Your task to perform on an android device: Show me the alarms in the clock app Image 0: 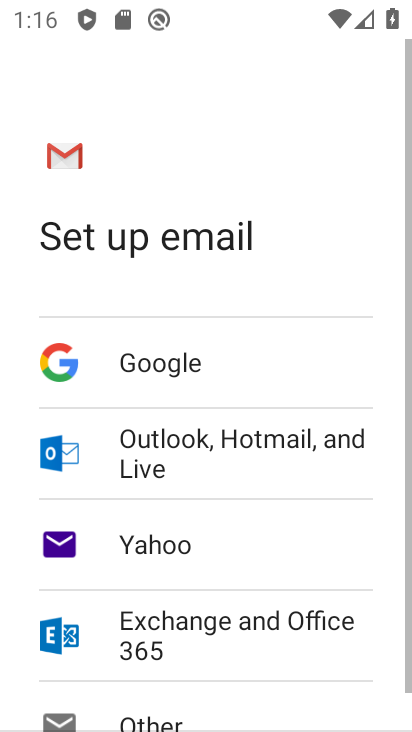
Step 0: press home button
Your task to perform on an android device: Show me the alarms in the clock app Image 1: 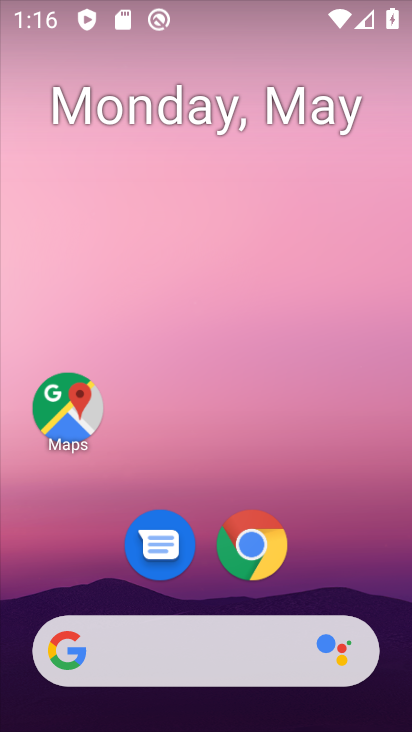
Step 1: drag from (185, 708) to (258, 110)
Your task to perform on an android device: Show me the alarms in the clock app Image 2: 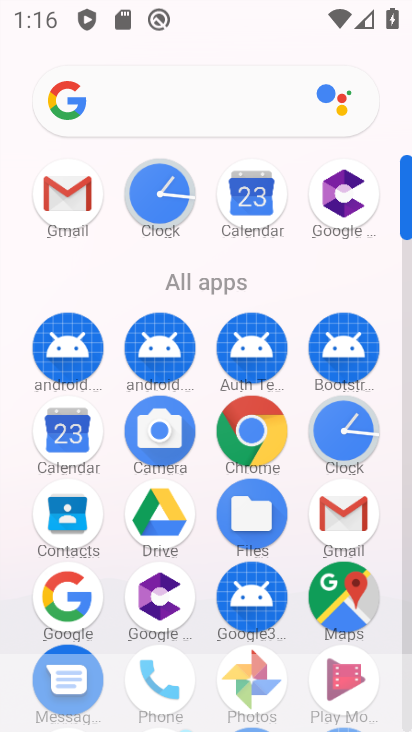
Step 2: click (153, 212)
Your task to perform on an android device: Show me the alarms in the clock app Image 3: 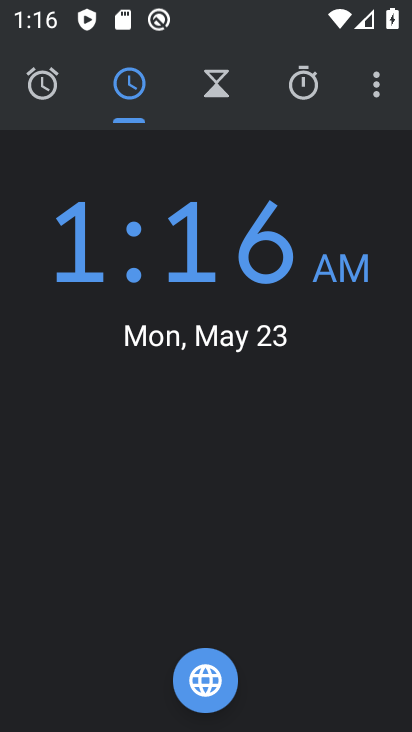
Step 3: click (48, 89)
Your task to perform on an android device: Show me the alarms in the clock app Image 4: 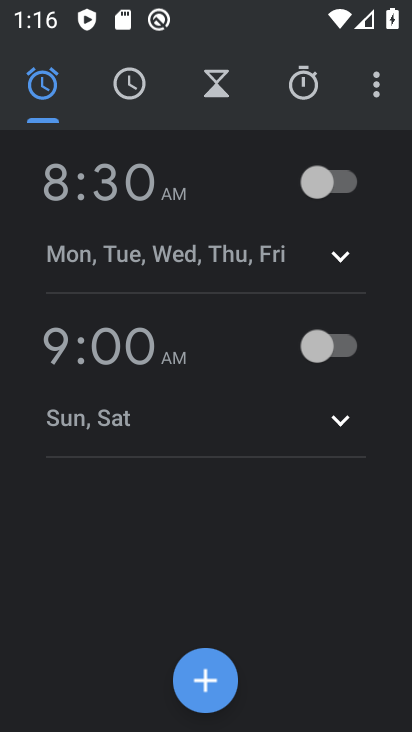
Step 4: task complete